Your task to perform on an android device: open a bookmark in the chrome app Image 0: 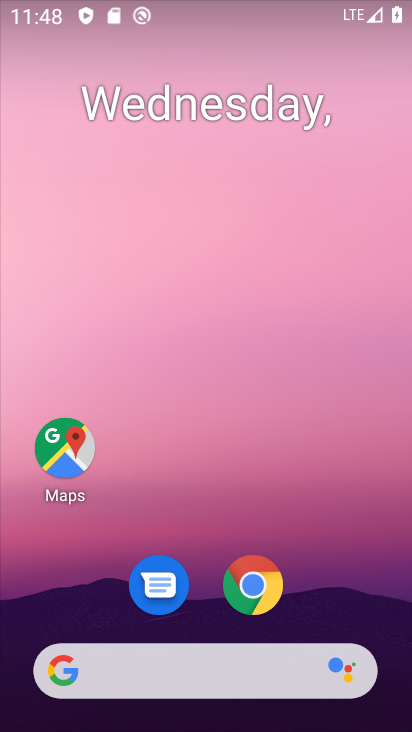
Step 0: click (257, 586)
Your task to perform on an android device: open a bookmark in the chrome app Image 1: 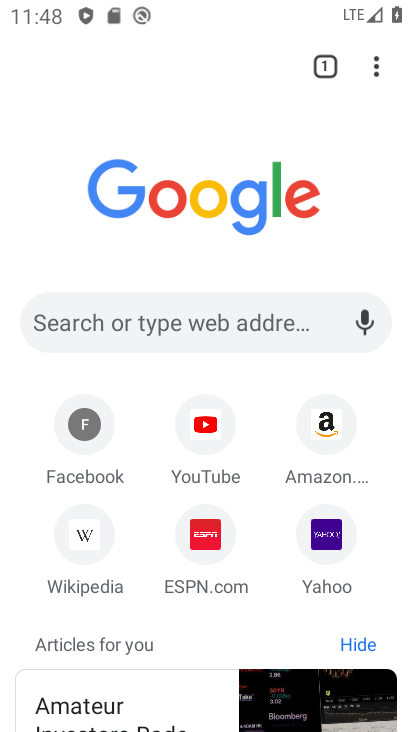
Step 1: click (379, 61)
Your task to perform on an android device: open a bookmark in the chrome app Image 2: 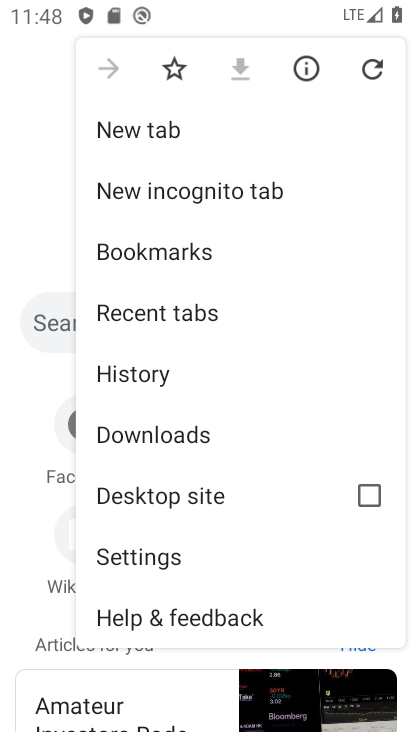
Step 2: click (195, 248)
Your task to perform on an android device: open a bookmark in the chrome app Image 3: 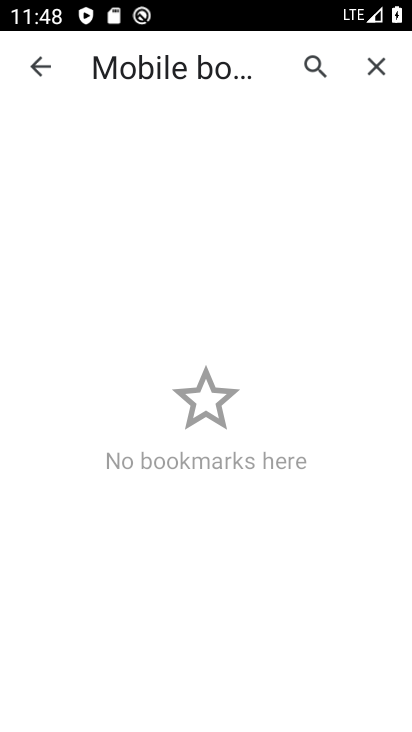
Step 3: task complete